Your task to perform on an android device: toggle notifications settings in the gmail app Image 0: 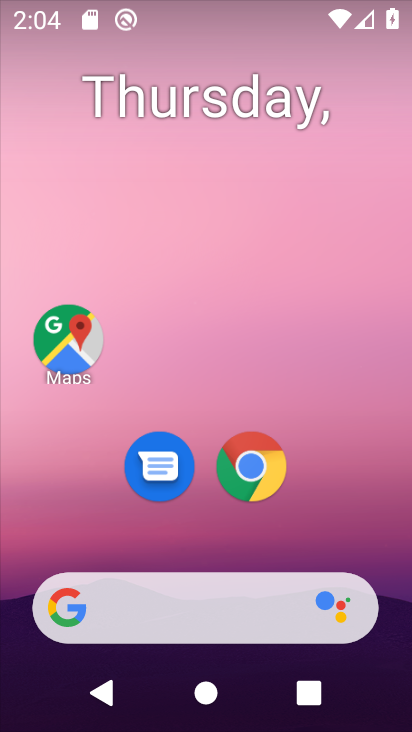
Step 0: drag from (214, 401) to (254, 82)
Your task to perform on an android device: toggle notifications settings in the gmail app Image 1: 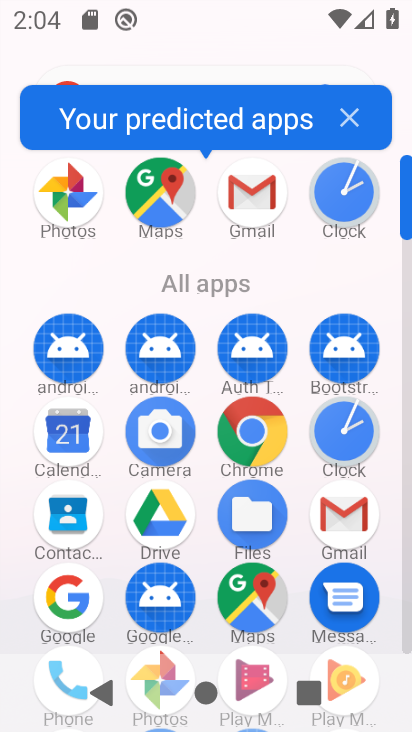
Step 1: click (245, 206)
Your task to perform on an android device: toggle notifications settings in the gmail app Image 2: 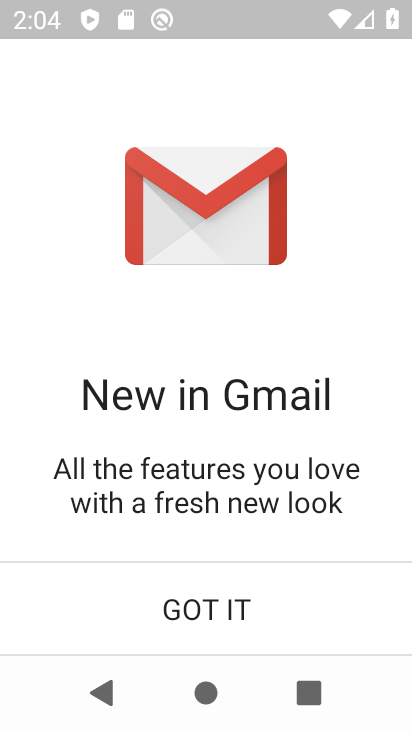
Step 2: click (163, 580)
Your task to perform on an android device: toggle notifications settings in the gmail app Image 3: 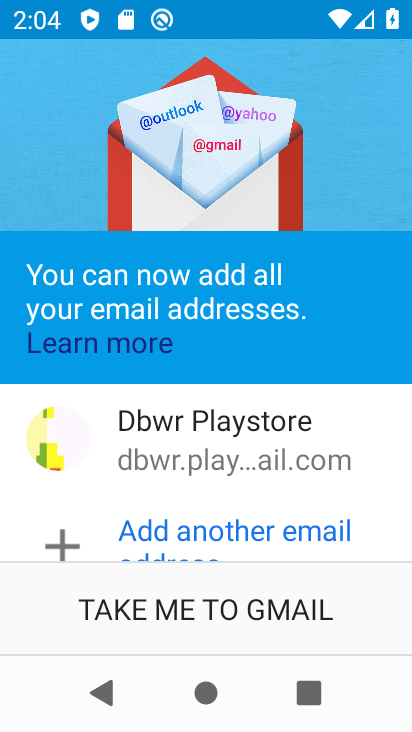
Step 3: click (187, 624)
Your task to perform on an android device: toggle notifications settings in the gmail app Image 4: 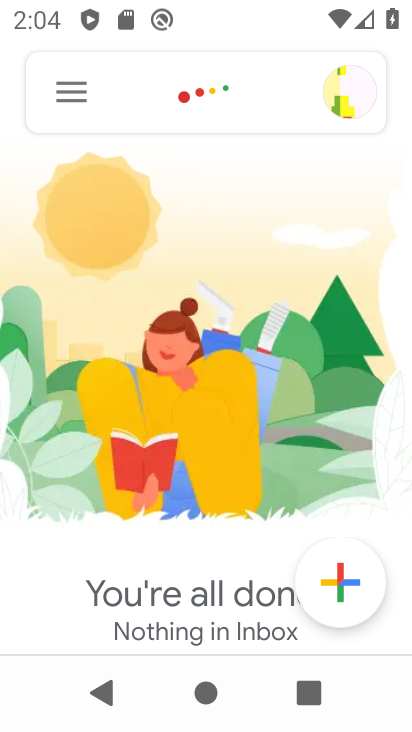
Step 4: click (58, 78)
Your task to perform on an android device: toggle notifications settings in the gmail app Image 5: 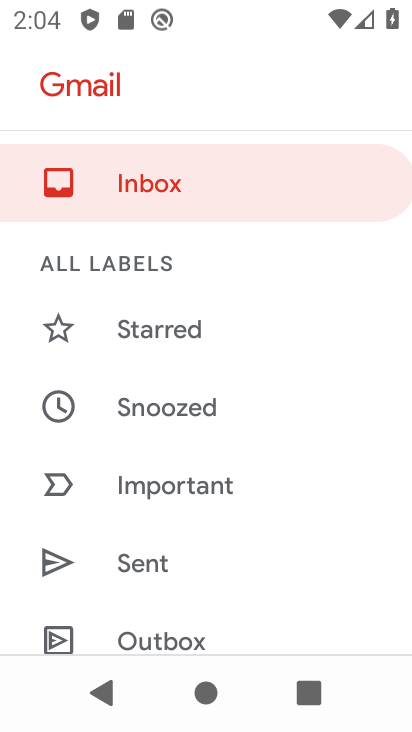
Step 5: drag from (179, 508) to (240, 177)
Your task to perform on an android device: toggle notifications settings in the gmail app Image 6: 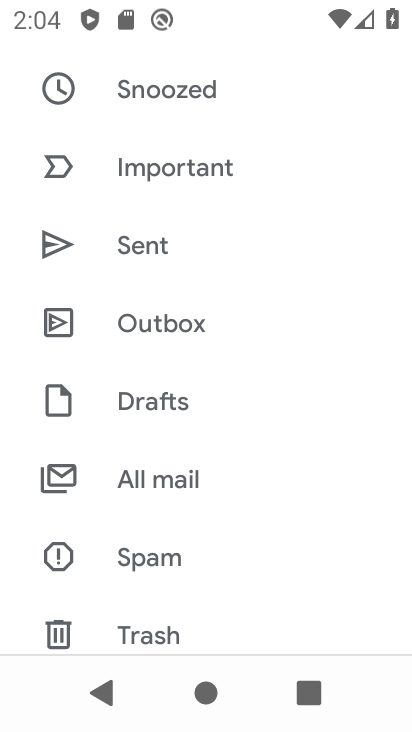
Step 6: drag from (205, 477) to (258, 204)
Your task to perform on an android device: toggle notifications settings in the gmail app Image 7: 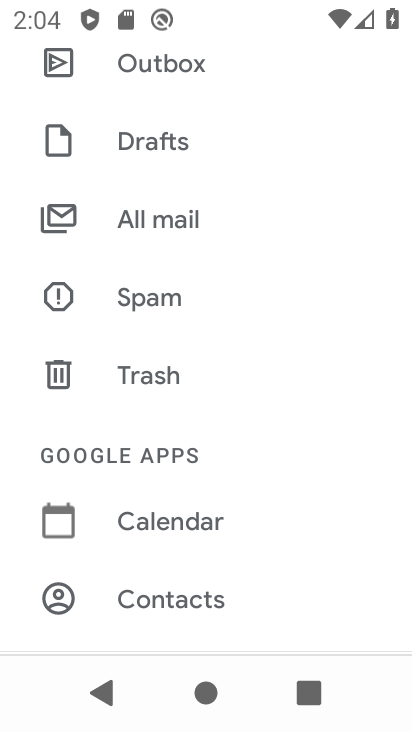
Step 7: drag from (195, 516) to (250, 231)
Your task to perform on an android device: toggle notifications settings in the gmail app Image 8: 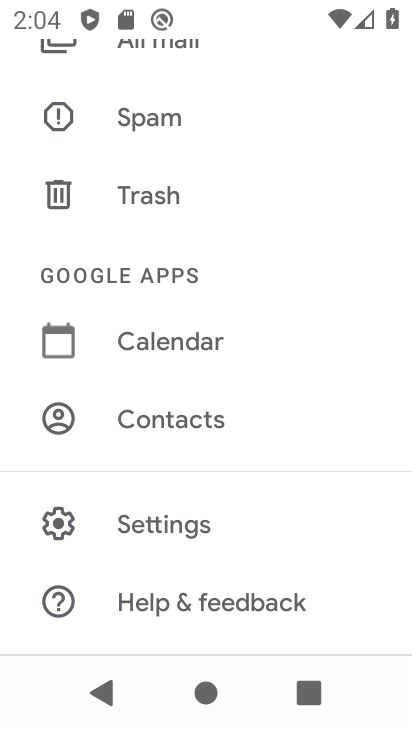
Step 8: click (166, 510)
Your task to perform on an android device: toggle notifications settings in the gmail app Image 9: 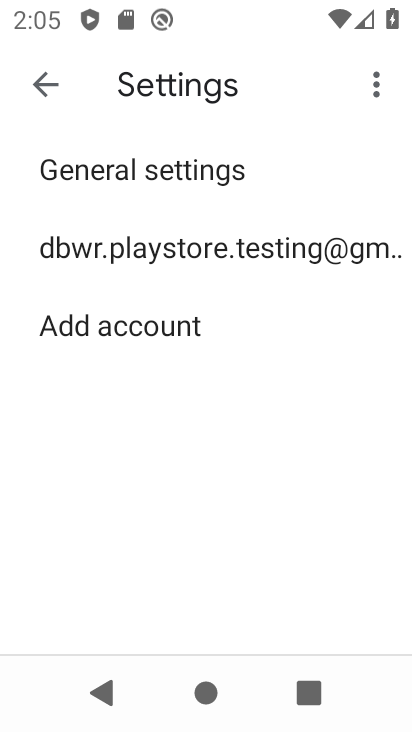
Step 9: click (192, 245)
Your task to perform on an android device: toggle notifications settings in the gmail app Image 10: 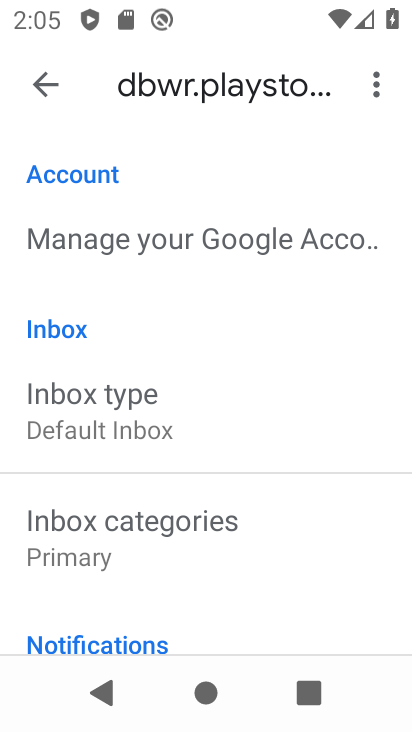
Step 10: drag from (206, 592) to (266, 220)
Your task to perform on an android device: toggle notifications settings in the gmail app Image 11: 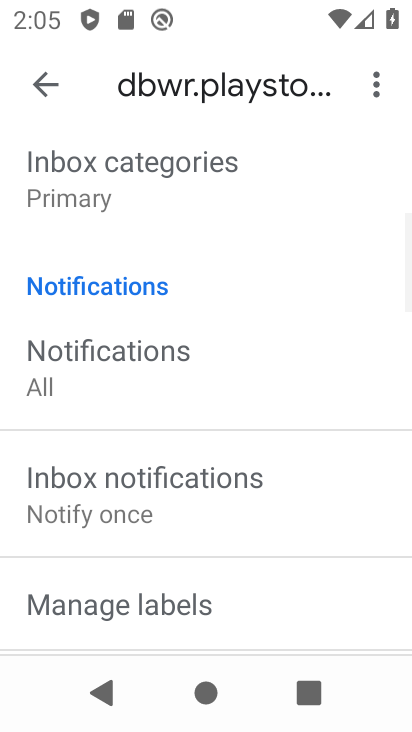
Step 11: drag from (211, 557) to (247, 329)
Your task to perform on an android device: toggle notifications settings in the gmail app Image 12: 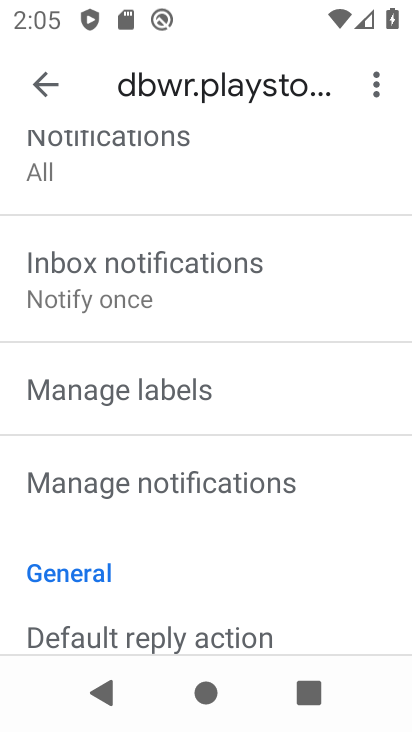
Step 12: click (164, 470)
Your task to perform on an android device: toggle notifications settings in the gmail app Image 13: 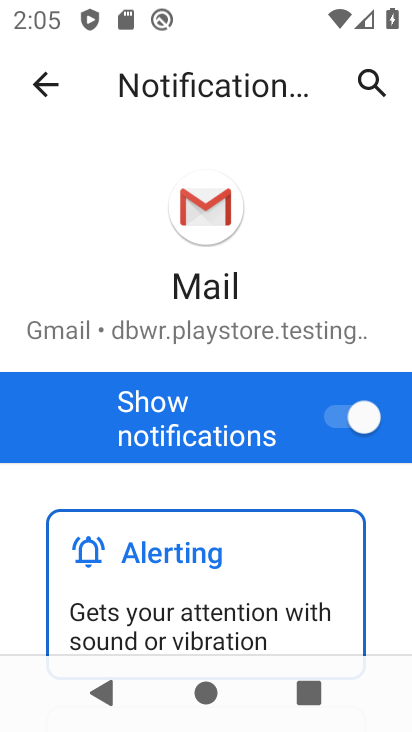
Step 13: click (337, 425)
Your task to perform on an android device: toggle notifications settings in the gmail app Image 14: 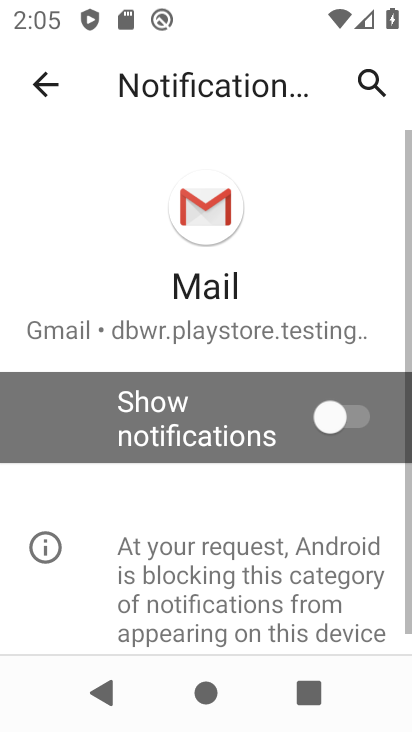
Step 14: task complete